Your task to perform on an android device: Open calendar and show me the third week of next month Image 0: 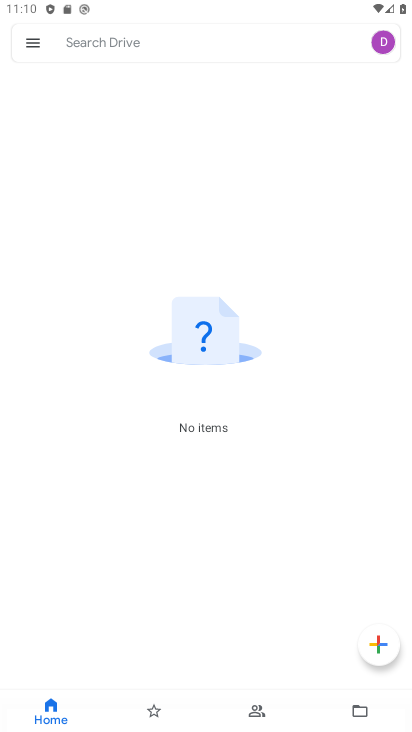
Step 0: press home button
Your task to perform on an android device: Open calendar and show me the third week of next month Image 1: 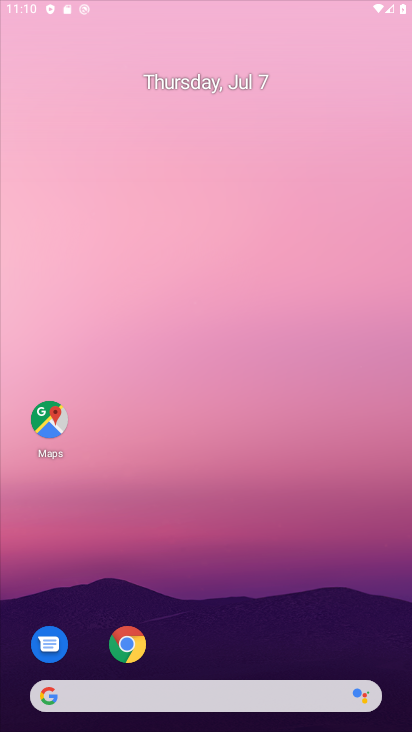
Step 1: drag from (230, 574) to (316, 51)
Your task to perform on an android device: Open calendar and show me the third week of next month Image 2: 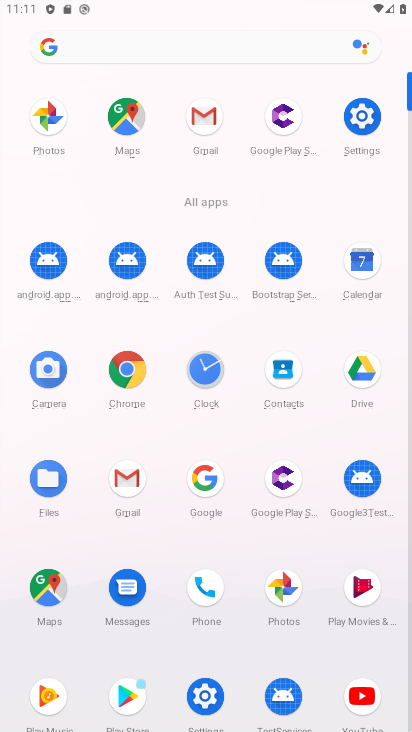
Step 2: click (359, 261)
Your task to perform on an android device: Open calendar and show me the third week of next month Image 3: 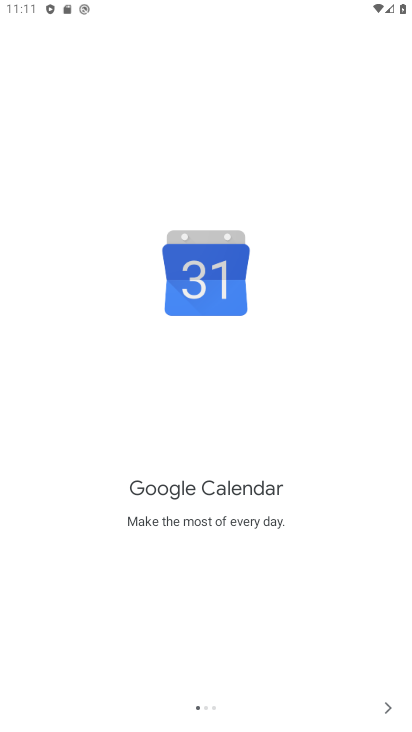
Step 3: drag from (199, 607) to (212, 365)
Your task to perform on an android device: Open calendar and show me the third week of next month Image 4: 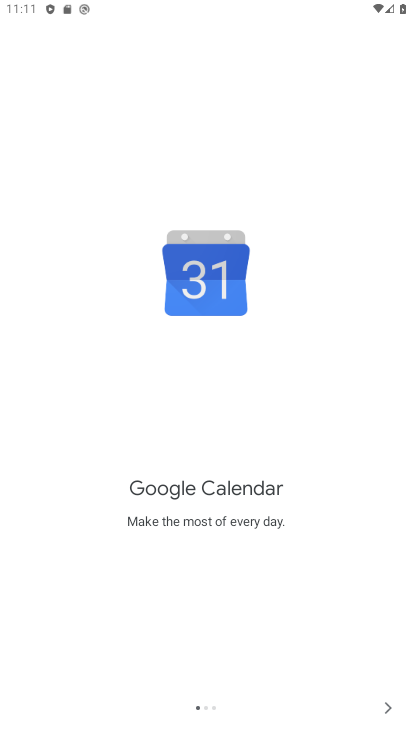
Step 4: click (381, 713)
Your task to perform on an android device: Open calendar and show me the third week of next month Image 5: 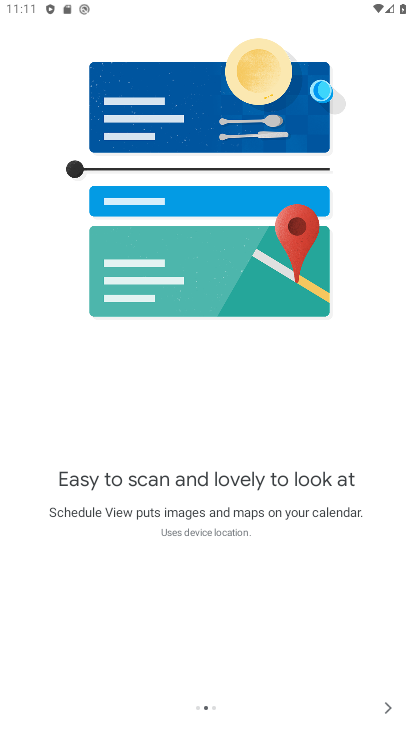
Step 5: click (377, 704)
Your task to perform on an android device: Open calendar and show me the third week of next month Image 6: 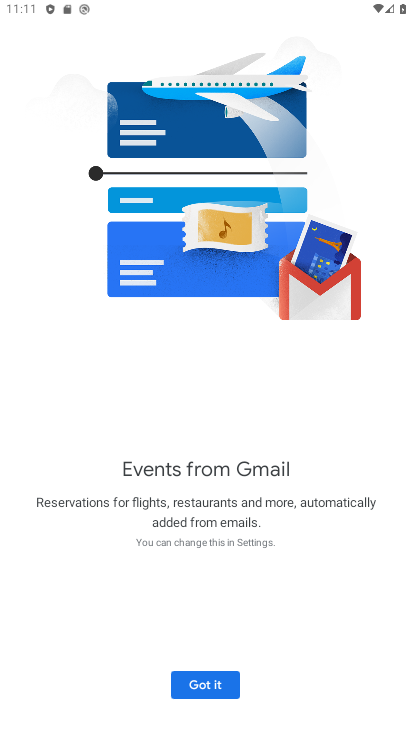
Step 6: click (201, 691)
Your task to perform on an android device: Open calendar and show me the third week of next month Image 7: 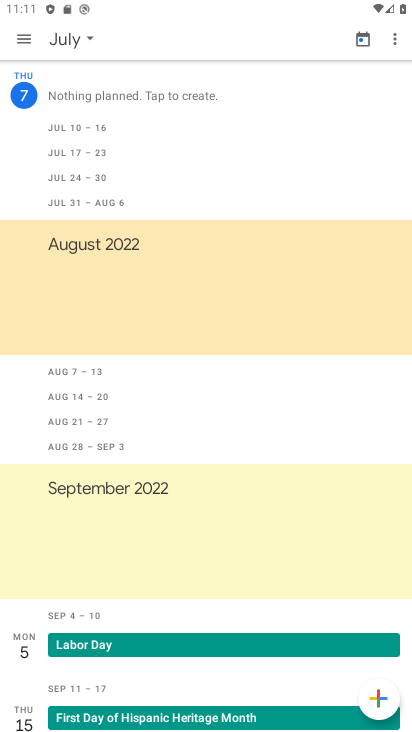
Step 7: click (71, 39)
Your task to perform on an android device: Open calendar and show me the third week of next month Image 8: 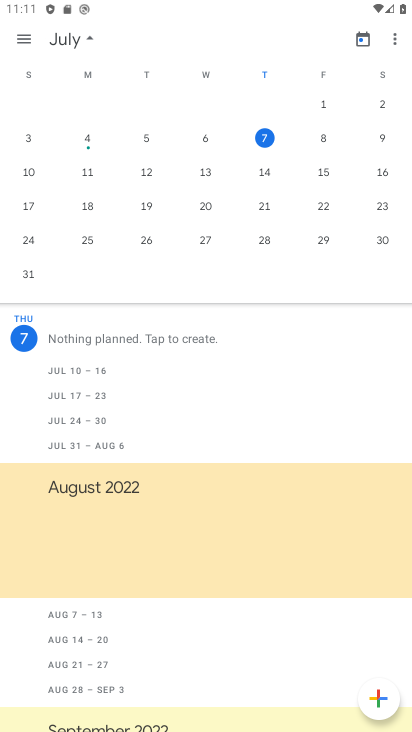
Step 8: drag from (346, 186) to (30, 178)
Your task to perform on an android device: Open calendar and show me the third week of next month Image 9: 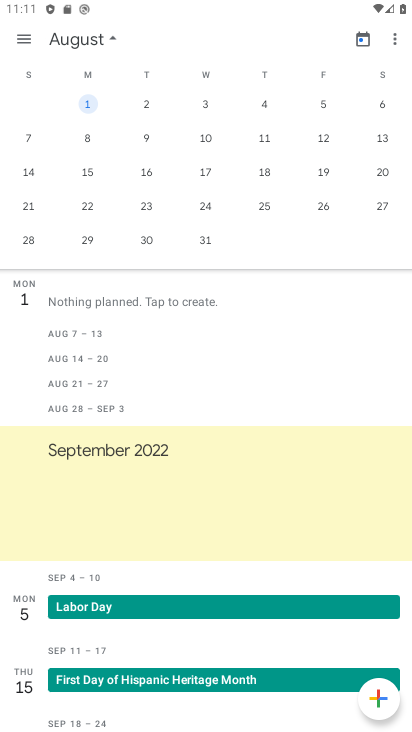
Step 9: click (329, 170)
Your task to perform on an android device: Open calendar and show me the third week of next month Image 10: 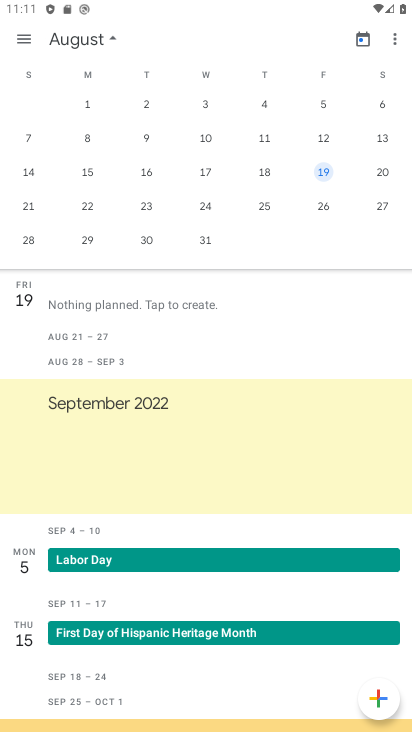
Step 10: task complete